Your task to perform on an android device: change the clock style Image 0: 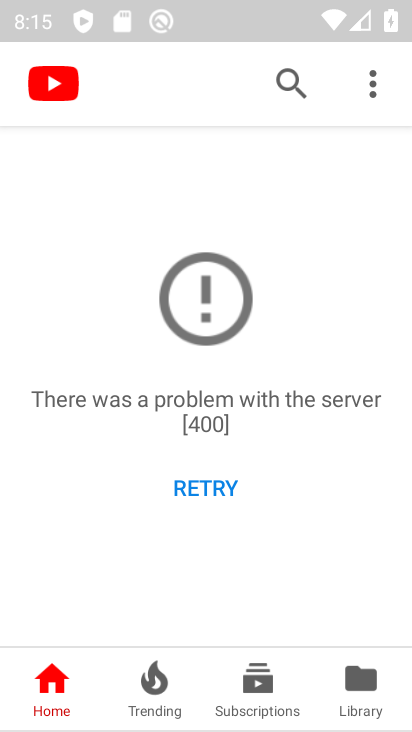
Step 0: press home button
Your task to perform on an android device: change the clock style Image 1: 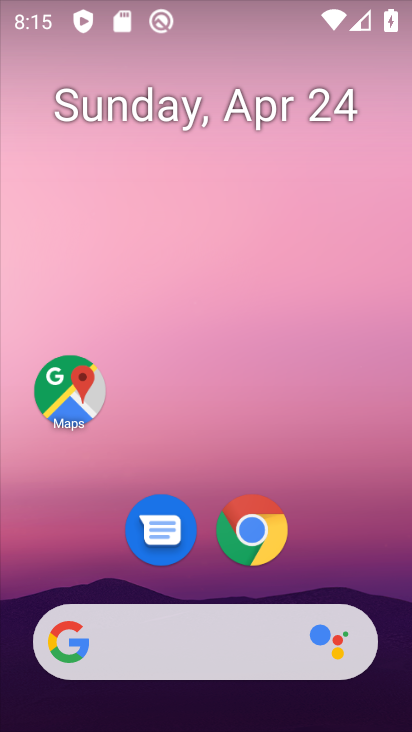
Step 1: drag from (251, 351) to (290, 152)
Your task to perform on an android device: change the clock style Image 2: 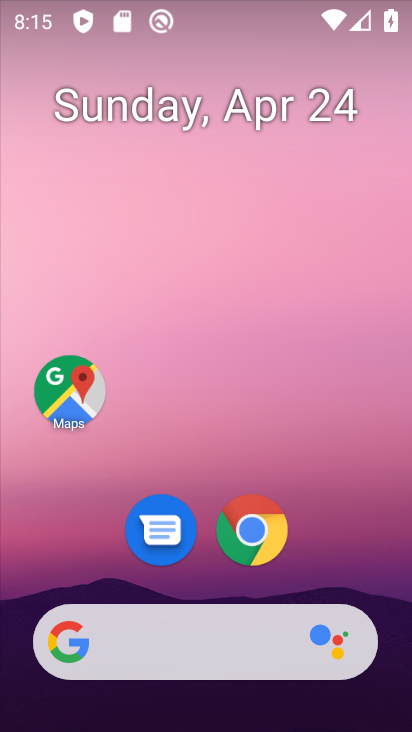
Step 2: drag from (200, 600) to (399, 18)
Your task to perform on an android device: change the clock style Image 3: 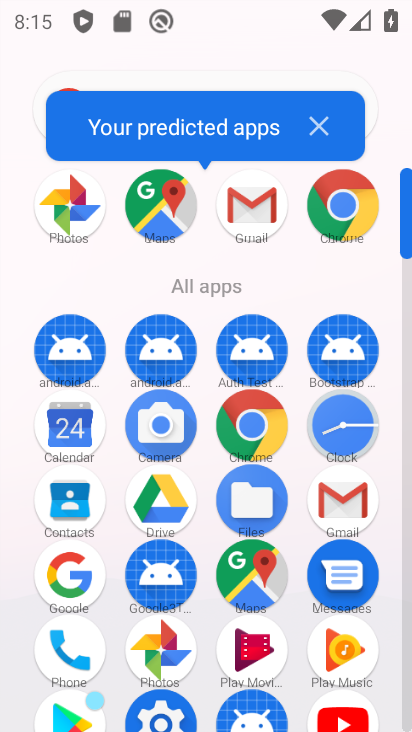
Step 3: click (342, 437)
Your task to perform on an android device: change the clock style Image 4: 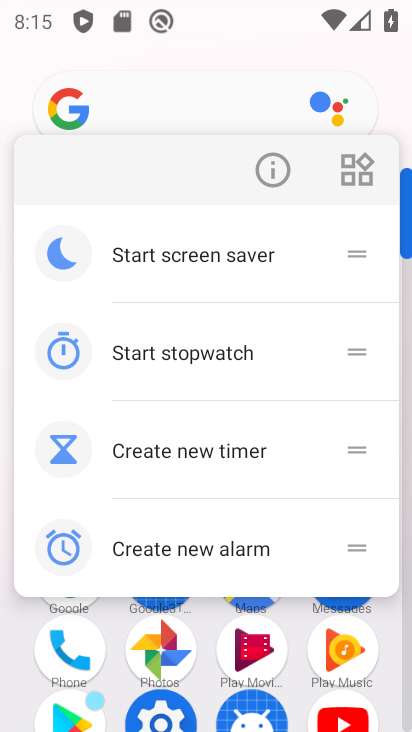
Step 4: press back button
Your task to perform on an android device: change the clock style Image 5: 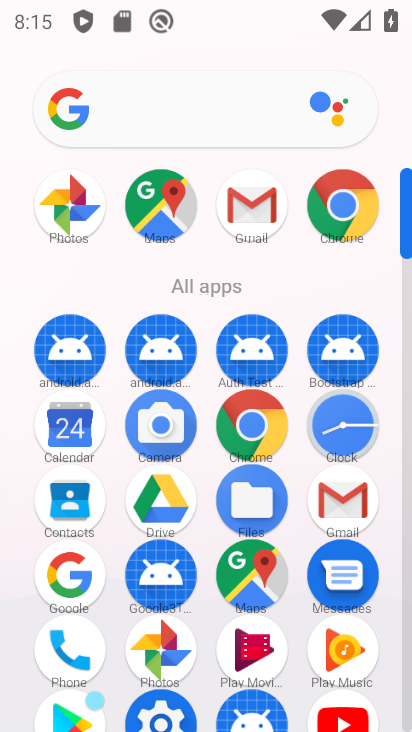
Step 5: click (371, 423)
Your task to perform on an android device: change the clock style Image 6: 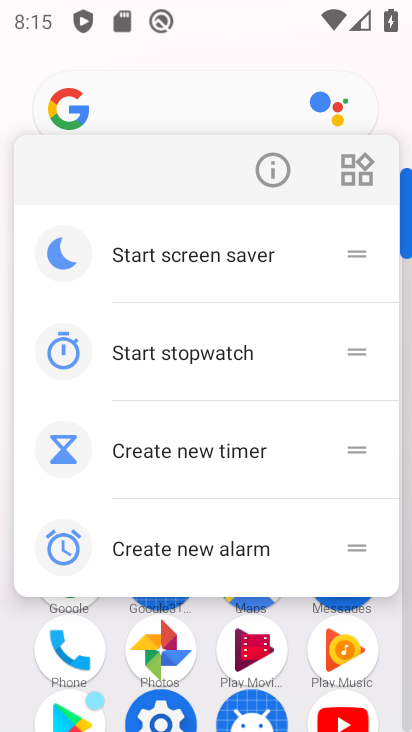
Step 6: press back button
Your task to perform on an android device: change the clock style Image 7: 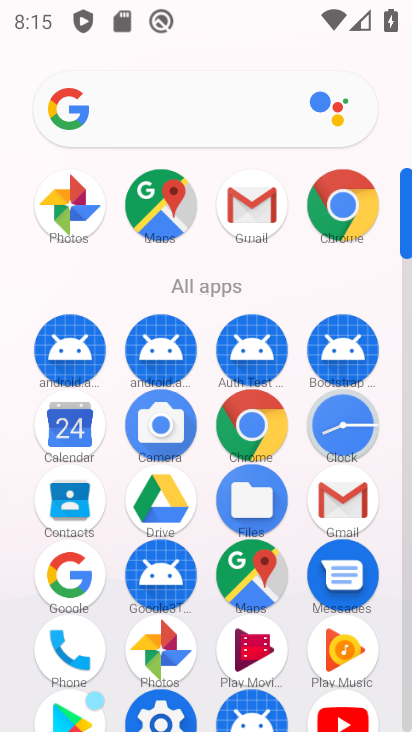
Step 7: click (353, 422)
Your task to perform on an android device: change the clock style Image 8: 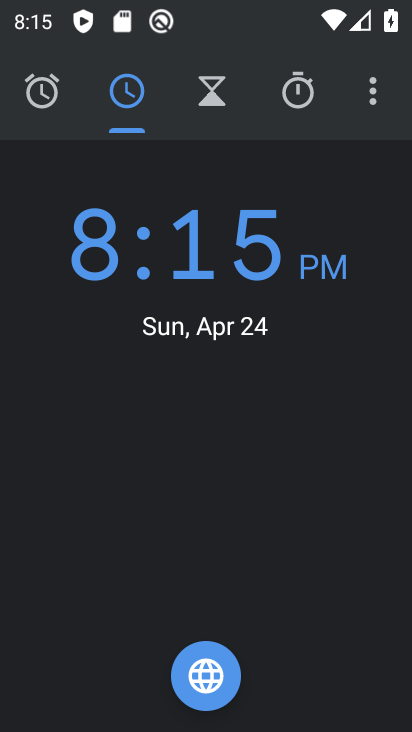
Step 8: click (383, 91)
Your task to perform on an android device: change the clock style Image 9: 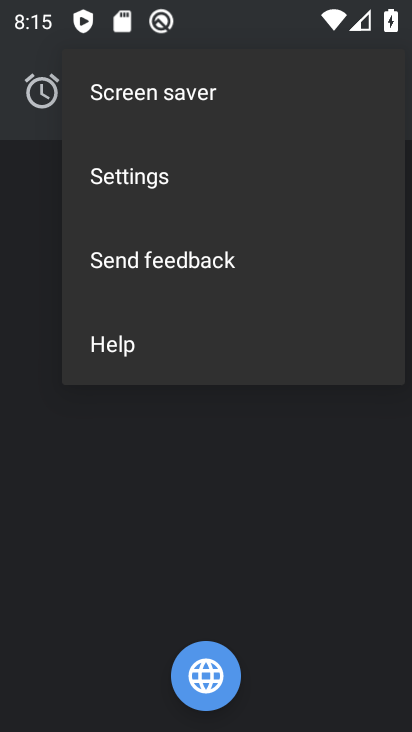
Step 9: click (341, 168)
Your task to perform on an android device: change the clock style Image 10: 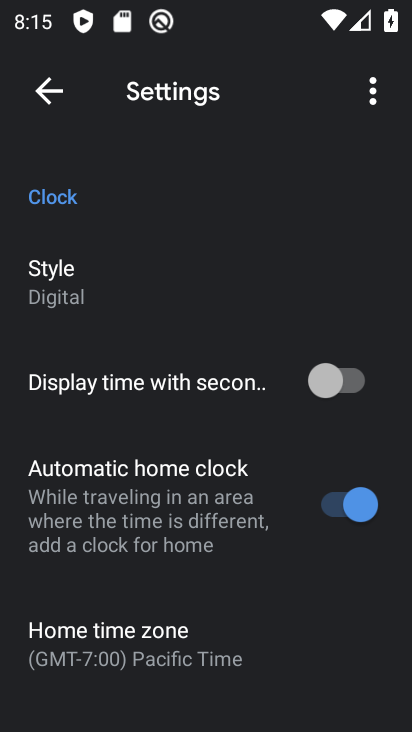
Step 10: click (127, 287)
Your task to perform on an android device: change the clock style Image 11: 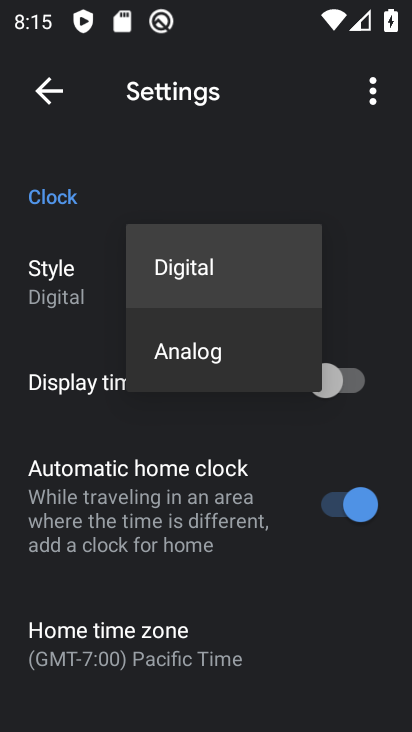
Step 11: click (192, 348)
Your task to perform on an android device: change the clock style Image 12: 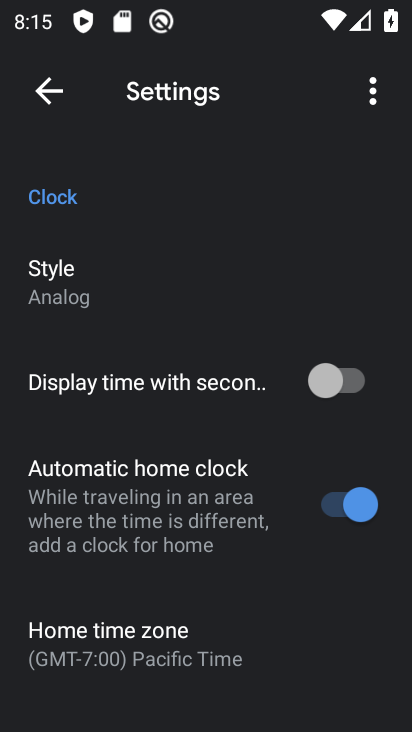
Step 12: task complete